Your task to perform on an android device: open the mobile data screen to see how much data has been used Image 0: 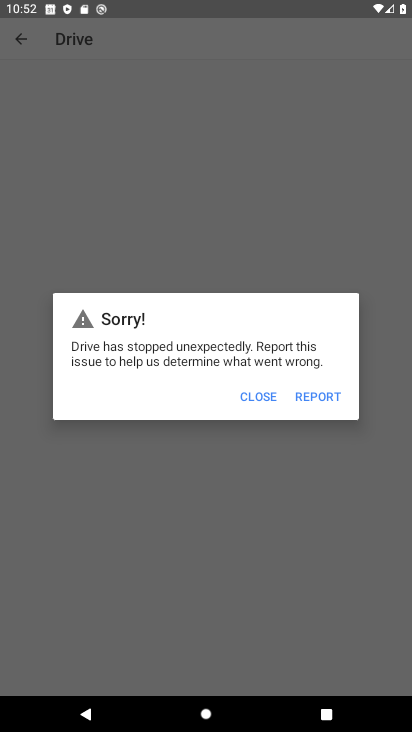
Step 0: press back button
Your task to perform on an android device: open the mobile data screen to see how much data has been used Image 1: 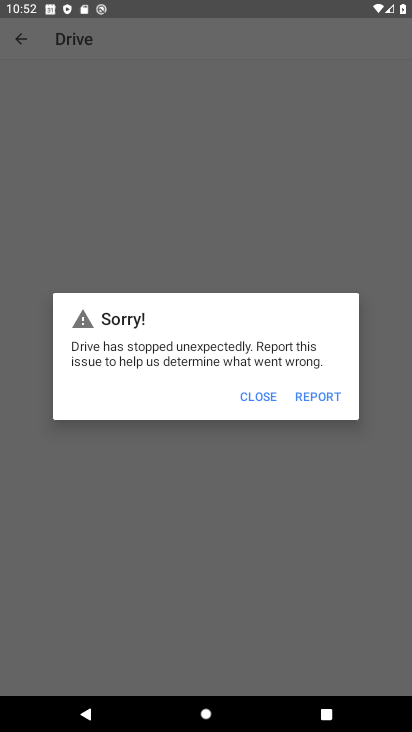
Step 1: press back button
Your task to perform on an android device: open the mobile data screen to see how much data has been used Image 2: 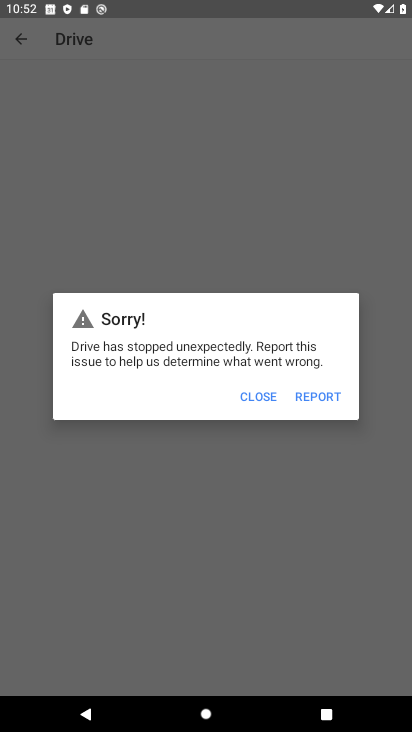
Step 2: press home button
Your task to perform on an android device: open the mobile data screen to see how much data has been used Image 3: 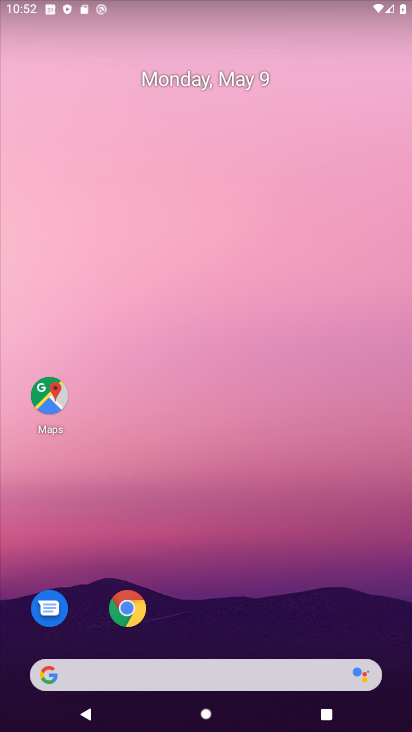
Step 3: drag from (170, 660) to (366, 5)
Your task to perform on an android device: open the mobile data screen to see how much data has been used Image 4: 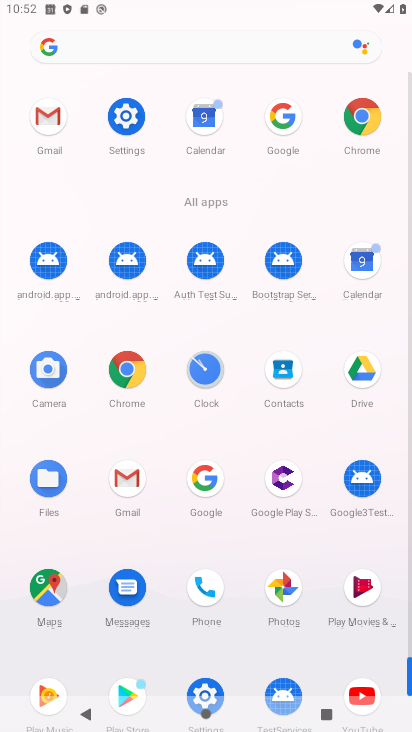
Step 4: drag from (219, 374) to (236, 334)
Your task to perform on an android device: open the mobile data screen to see how much data has been used Image 5: 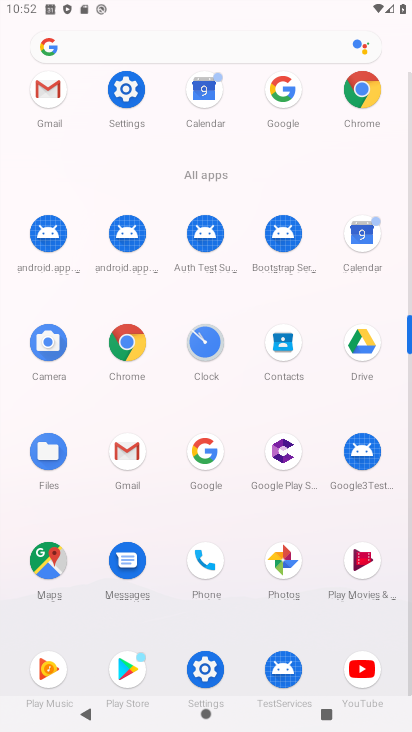
Step 5: click (219, 665)
Your task to perform on an android device: open the mobile data screen to see how much data has been used Image 6: 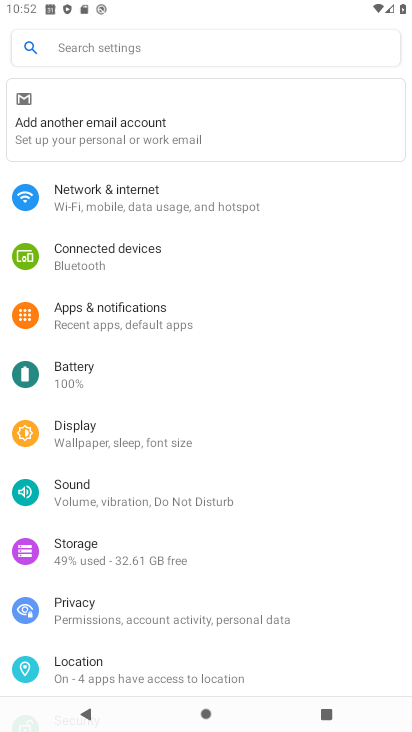
Step 6: click (160, 204)
Your task to perform on an android device: open the mobile data screen to see how much data has been used Image 7: 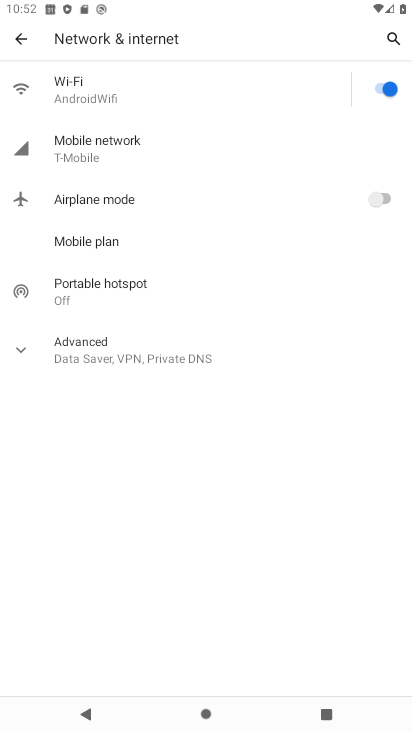
Step 7: click (143, 148)
Your task to perform on an android device: open the mobile data screen to see how much data has been used Image 8: 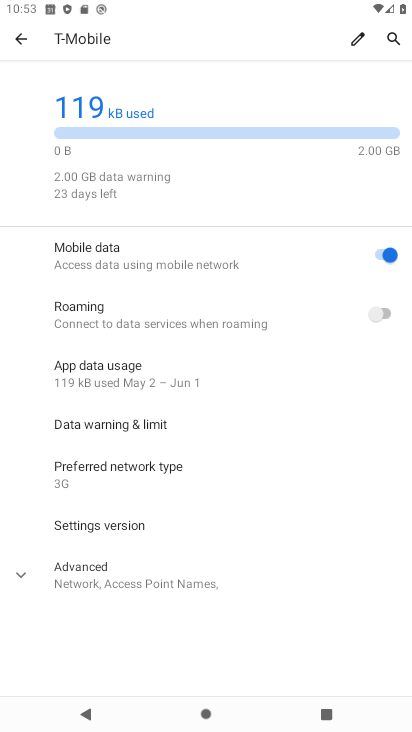
Step 8: click (159, 191)
Your task to perform on an android device: open the mobile data screen to see how much data has been used Image 9: 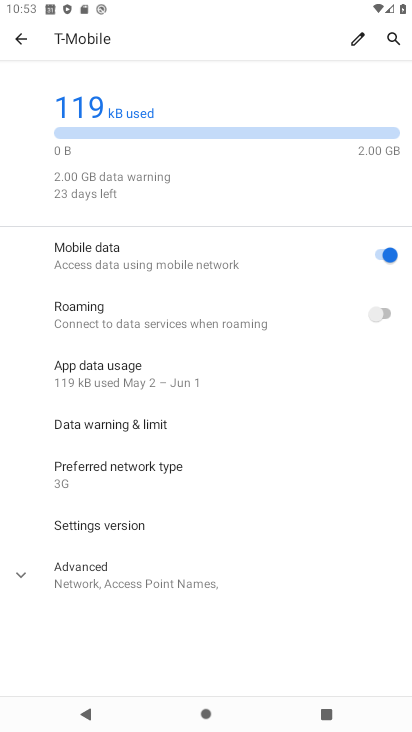
Step 9: task complete